Your task to perform on an android device: turn on location history Image 0: 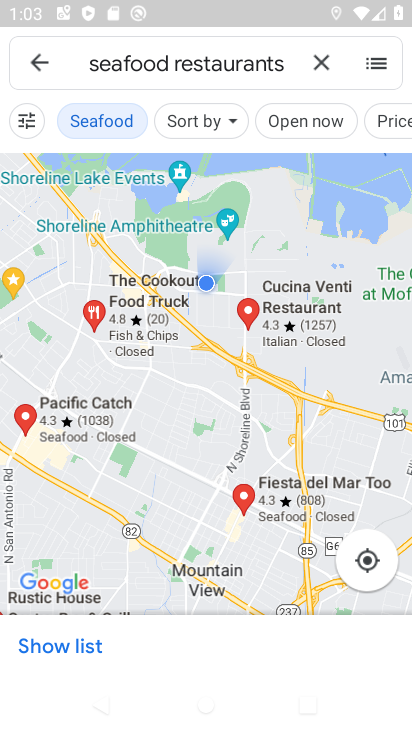
Step 0: press home button
Your task to perform on an android device: turn on location history Image 1: 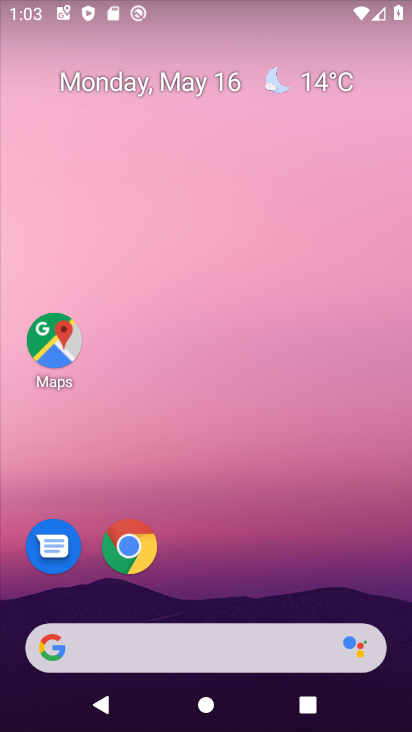
Step 1: drag from (318, 673) to (225, 230)
Your task to perform on an android device: turn on location history Image 2: 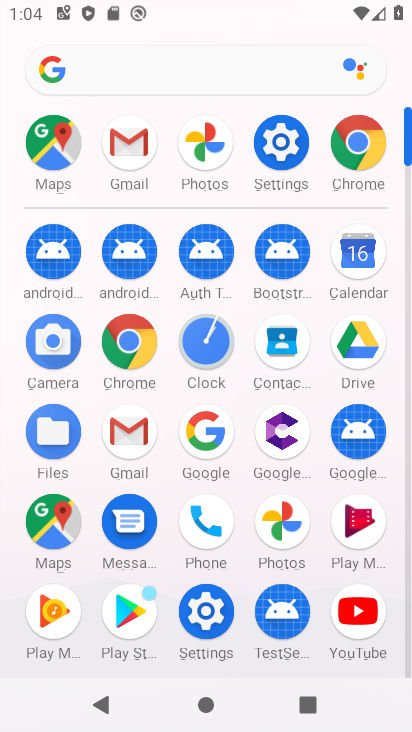
Step 2: click (281, 141)
Your task to perform on an android device: turn on location history Image 3: 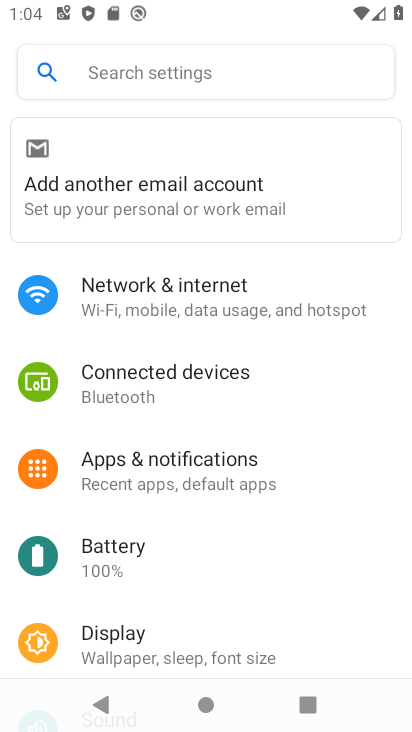
Step 3: click (190, 69)
Your task to perform on an android device: turn on location history Image 4: 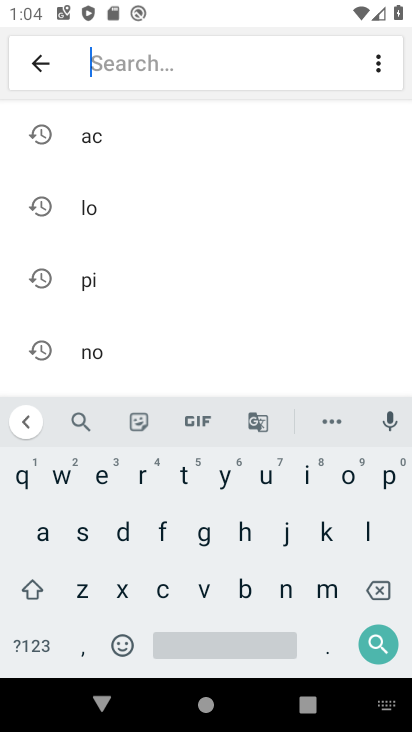
Step 4: click (125, 216)
Your task to perform on an android device: turn on location history Image 5: 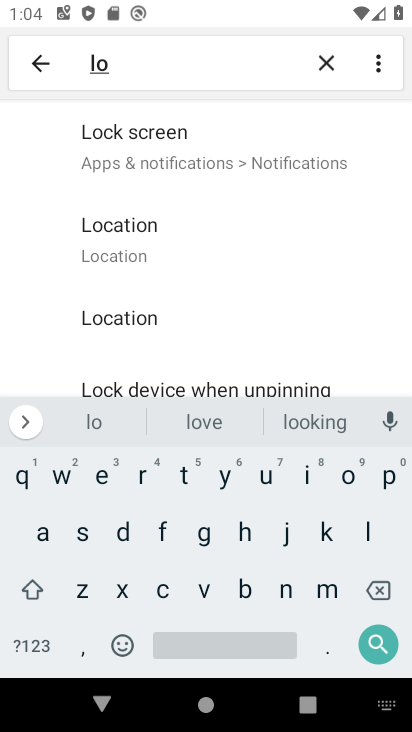
Step 5: click (125, 215)
Your task to perform on an android device: turn on location history Image 6: 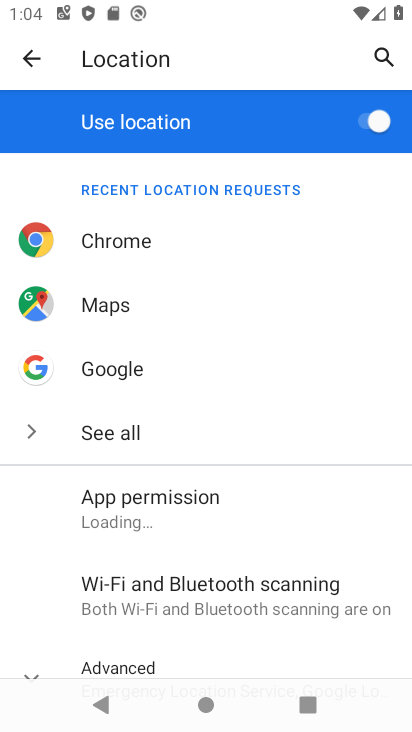
Step 6: drag from (224, 545) to (193, 307)
Your task to perform on an android device: turn on location history Image 7: 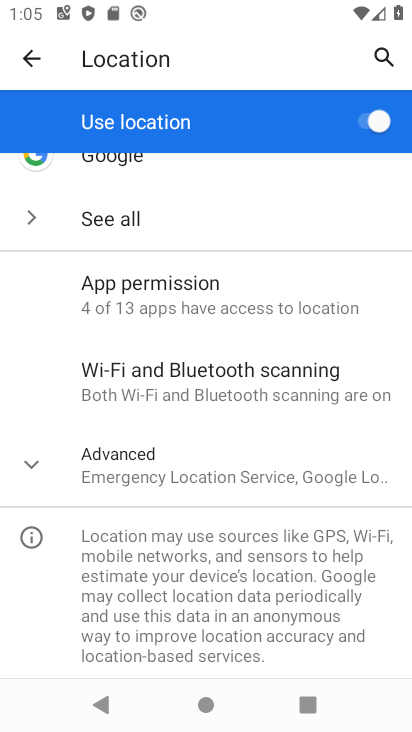
Step 7: click (166, 472)
Your task to perform on an android device: turn on location history Image 8: 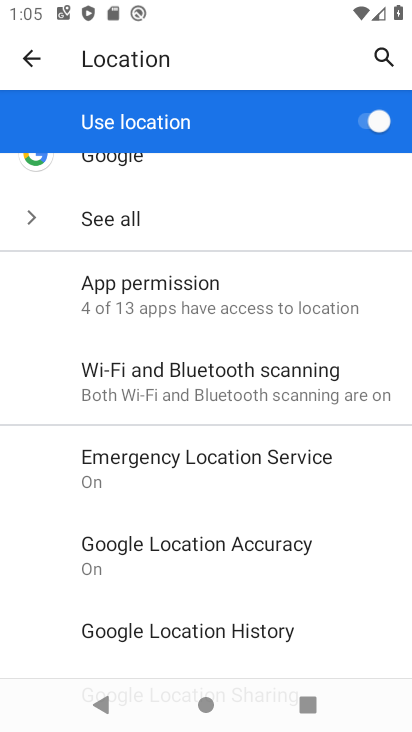
Step 8: click (226, 633)
Your task to perform on an android device: turn on location history Image 9: 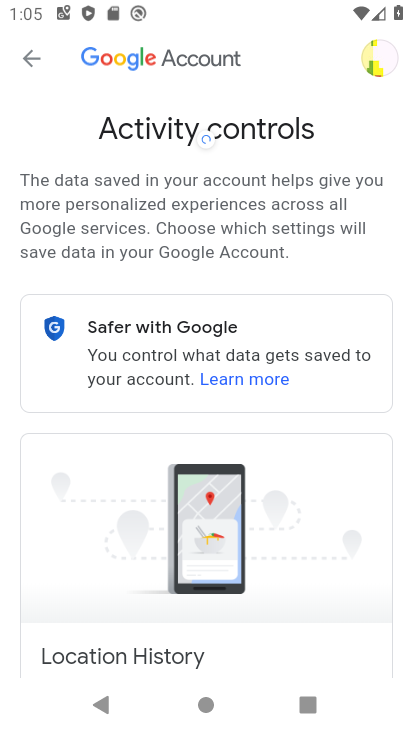
Step 9: task complete